Your task to perform on an android device: refresh tabs in the chrome app Image 0: 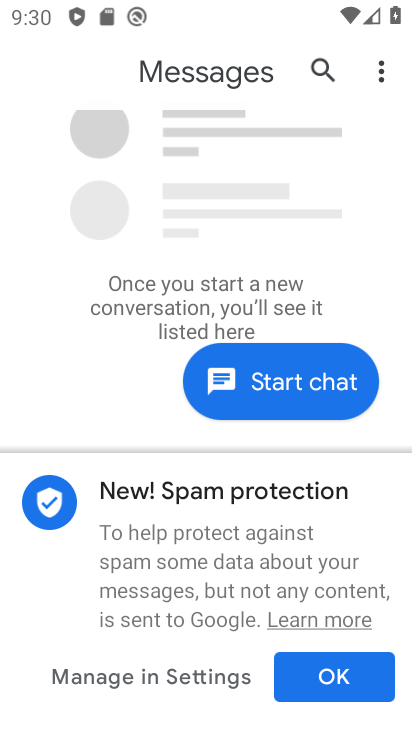
Step 0: click (203, 602)
Your task to perform on an android device: refresh tabs in the chrome app Image 1: 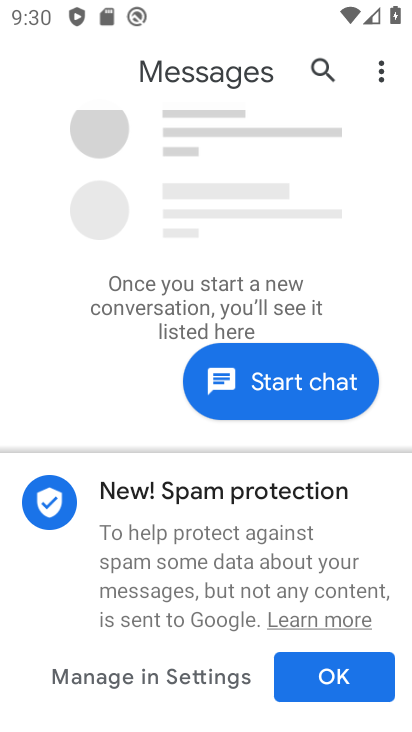
Step 1: press home button
Your task to perform on an android device: refresh tabs in the chrome app Image 2: 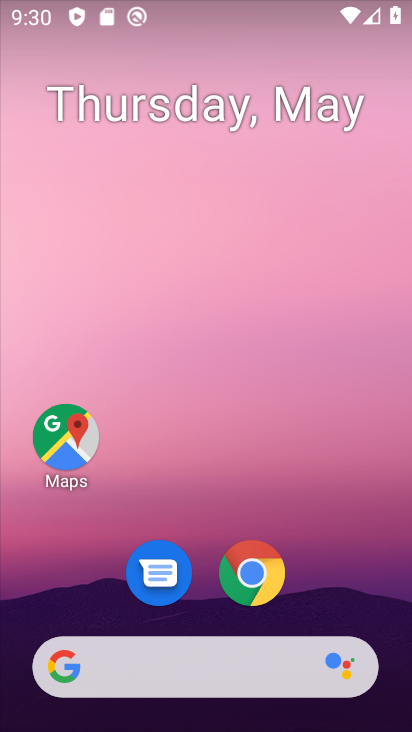
Step 2: click (235, 580)
Your task to perform on an android device: refresh tabs in the chrome app Image 3: 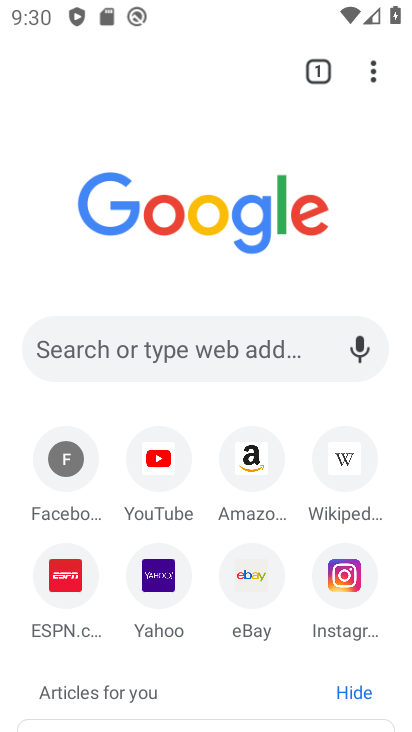
Step 3: click (362, 76)
Your task to perform on an android device: refresh tabs in the chrome app Image 4: 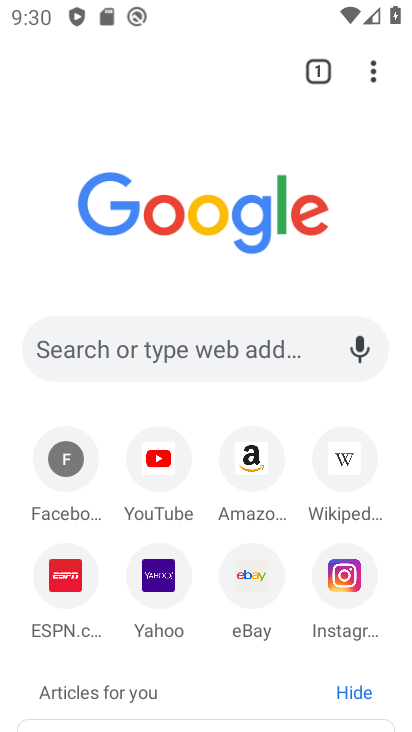
Step 4: click (365, 81)
Your task to perform on an android device: refresh tabs in the chrome app Image 5: 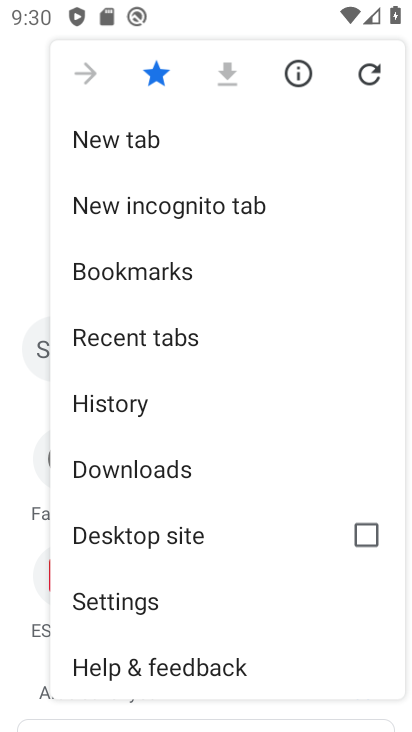
Step 5: click (360, 81)
Your task to perform on an android device: refresh tabs in the chrome app Image 6: 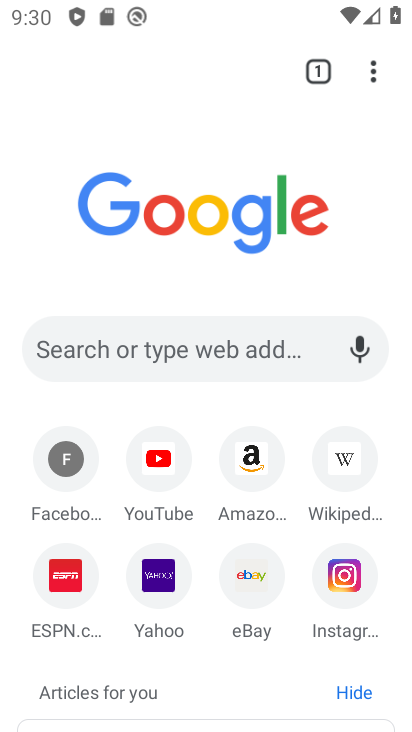
Step 6: click (370, 69)
Your task to perform on an android device: refresh tabs in the chrome app Image 7: 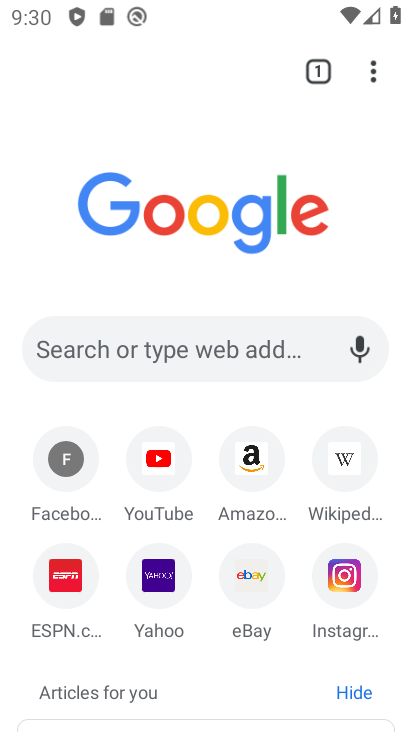
Step 7: click (370, 72)
Your task to perform on an android device: refresh tabs in the chrome app Image 8: 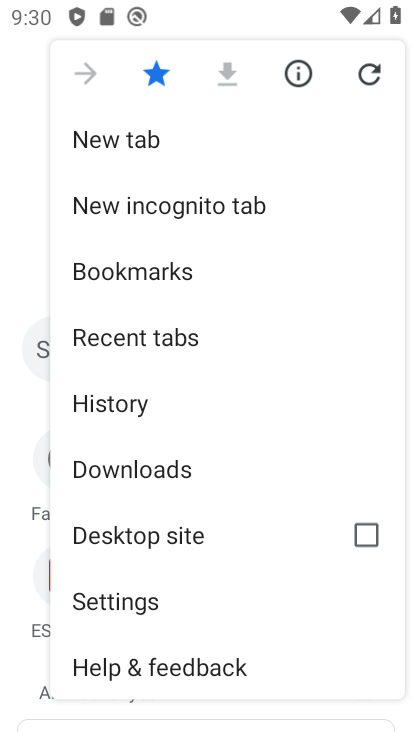
Step 8: click (370, 72)
Your task to perform on an android device: refresh tabs in the chrome app Image 9: 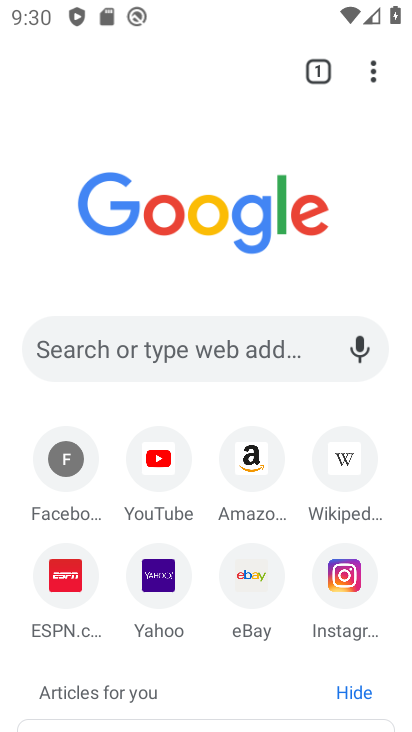
Step 9: task complete